Your task to perform on an android device: set the stopwatch Image 0: 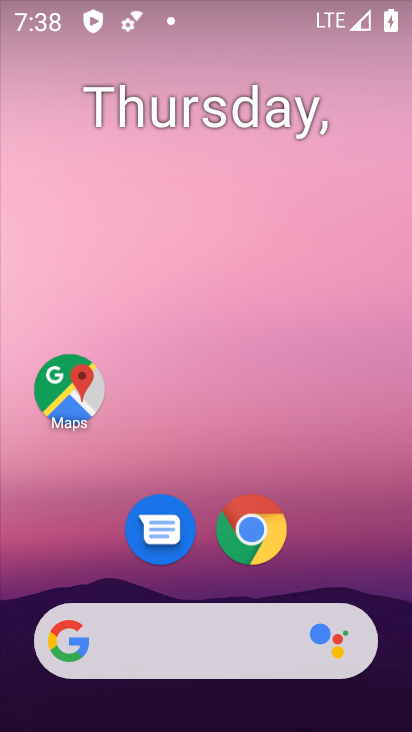
Step 0: drag from (375, 575) to (368, 170)
Your task to perform on an android device: set the stopwatch Image 1: 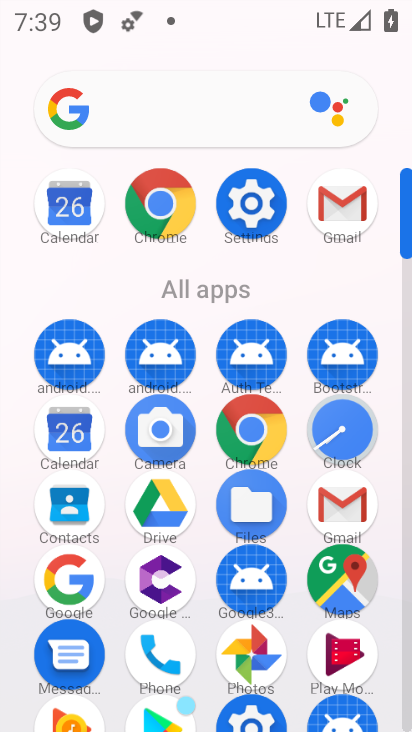
Step 1: click (345, 443)
Your task to perform on an android device: set the stopwatch Image 2: 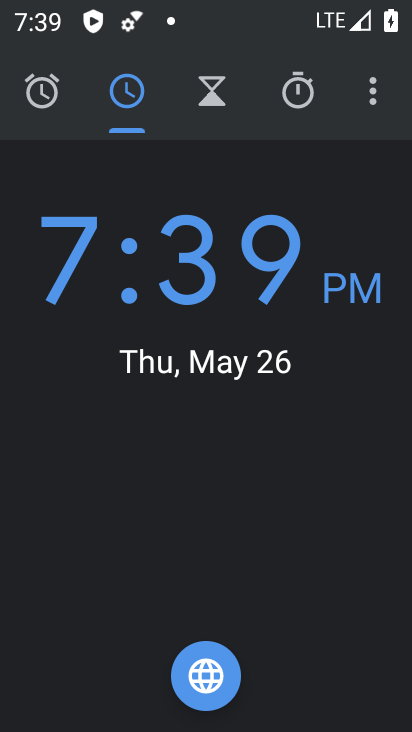
Step 2: click (297, 107)
Your task to perform on an android device: set the stopwatch Image 3: 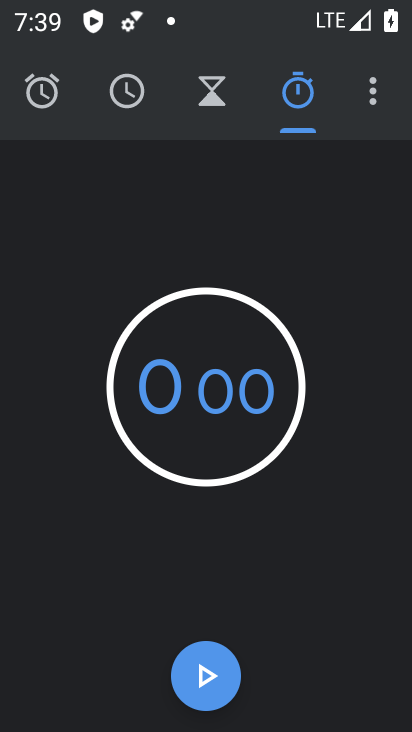
Step 3: click (207, 703)
Your task to perform on an android device: set the stopwatch Image 4: 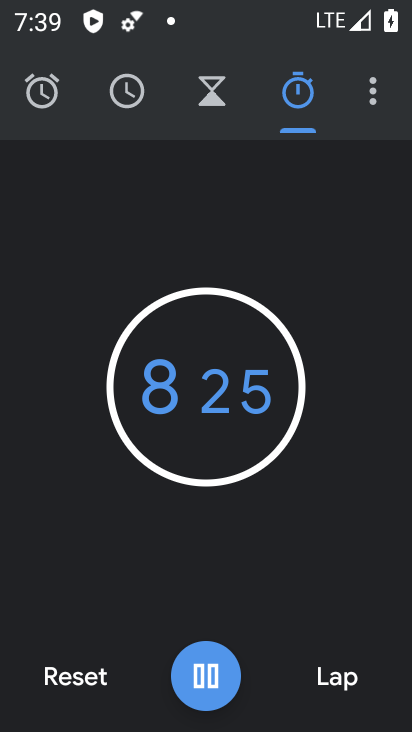
Step 4: task complete